Your task to perform on an android device: check google app version Image 0: 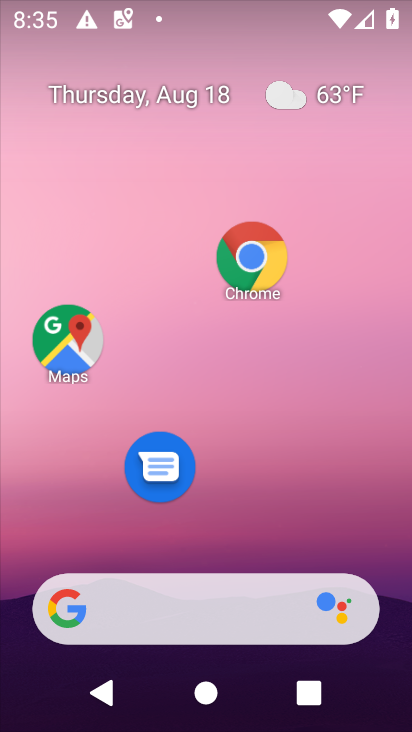
Step 0: task complete